Your task to perform on an android device: Open the calendar app, open the side menu, and click the "Day" option Image 0: 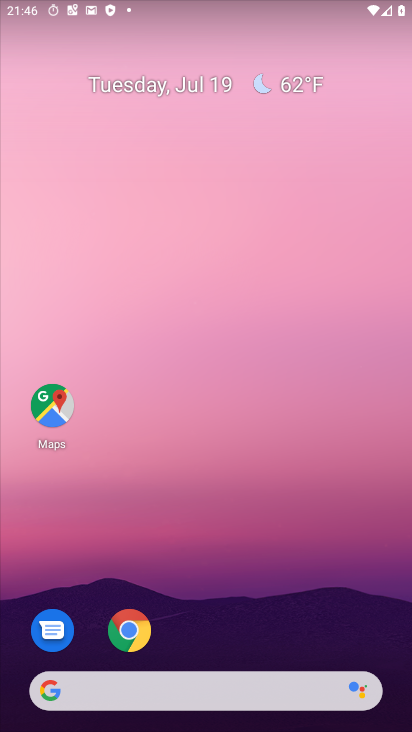
Step 0: drag from (127, 372) to (272, 17)
Your task to perform on an android device: Open the calendar app, open the side menu, and click the "Day" option Image 1: 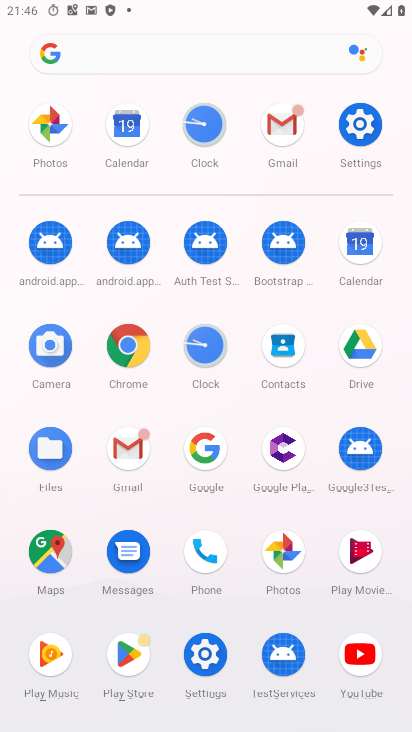
Step 1: click (361, 239)
Your task to perform on an android device: Open the calendar app, open the side menu, and click the "Day" option Image 2: 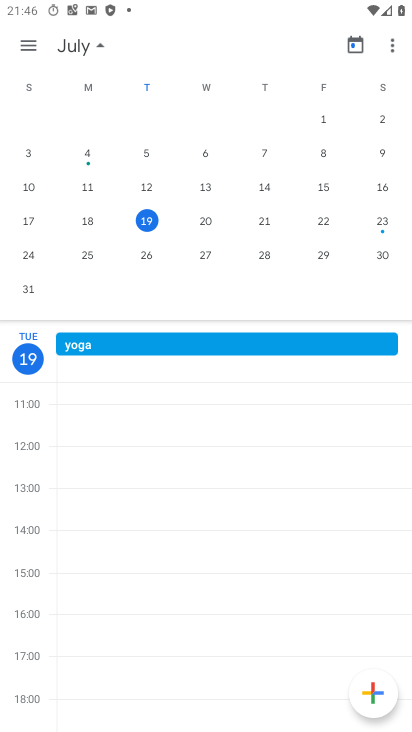
Step 2: click (31, 31)
Your task to perform on an android device: Open the calendar app, open the side menu, and click the "Day" option Image 3: 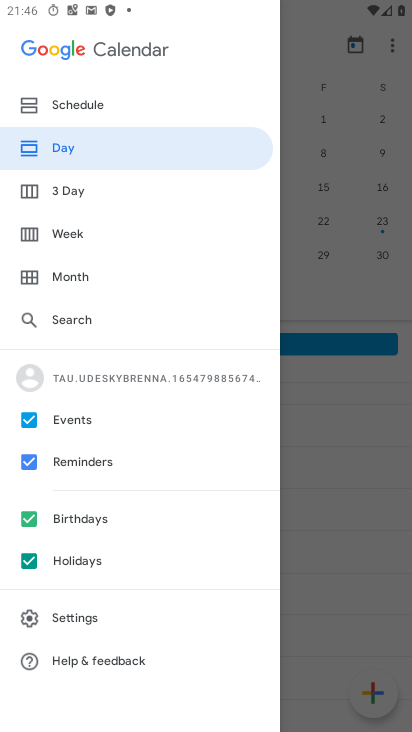
Step 3: click (69, 150)
Your task to perform on an android device: Open the calendar app, open the side menu, and click the "Day" option Image 4: 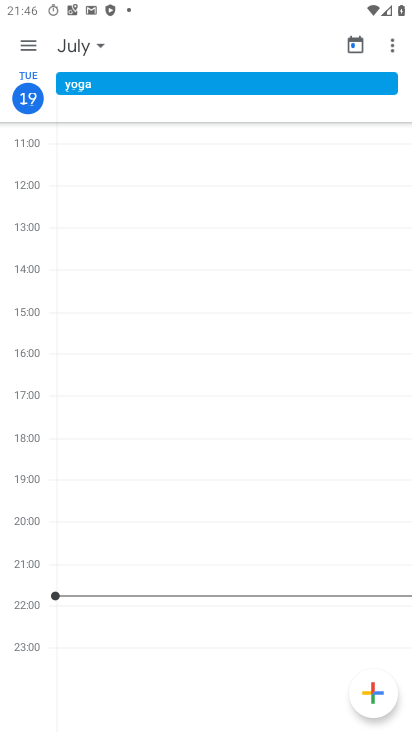
Step 4: task complete